Your task to perform on an android device: manage bookmarks in the chrome app Image 0: 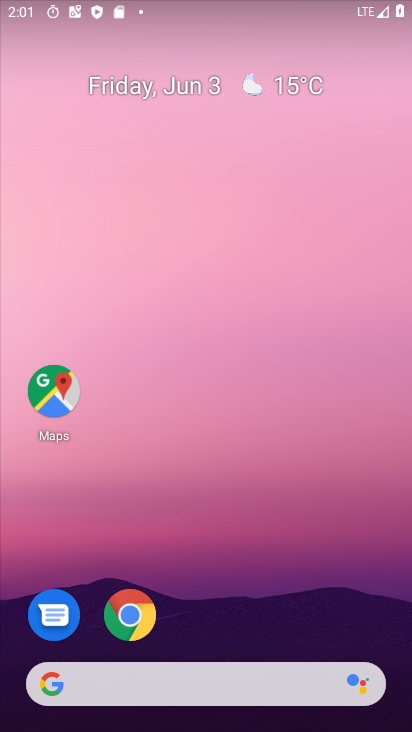
Step 0: drag from (206, 551) to (210, 59)
Your task to perform on an android device: manage bookmarks in the chrome app Image 1: 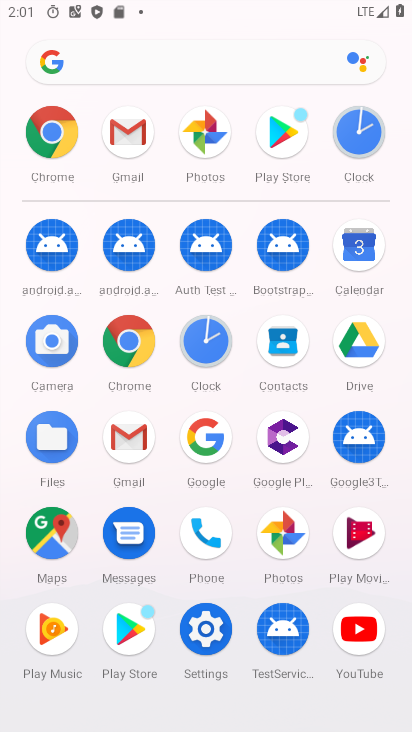
Step 1: click (121, 343)
Your task to perform on an android device: manage bookmarks in the chrome app Image 2: 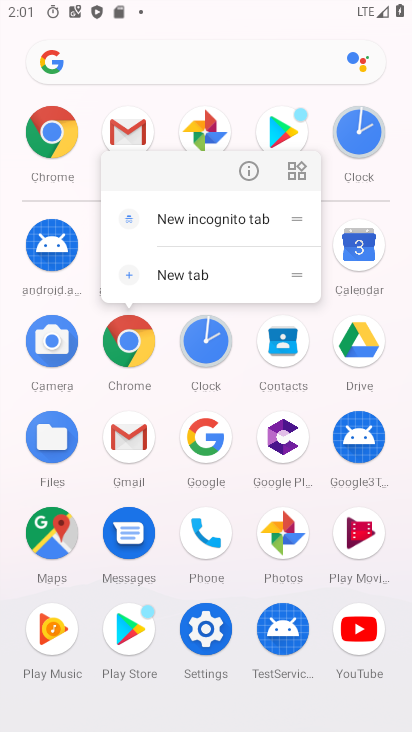
Step 2: click (250, 174)
Your task to perform on an android device: manage bookmarks in the chrome app Image 3: 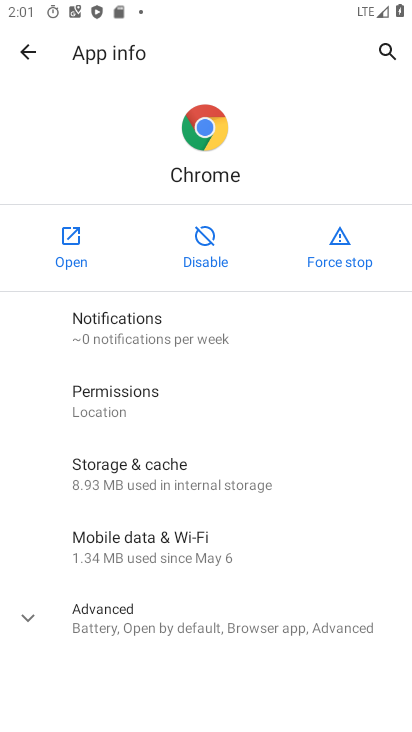
Step 3: click (68, 237)
Your task to perform on an android device: manage bookmarks in the chrome app Image 4: 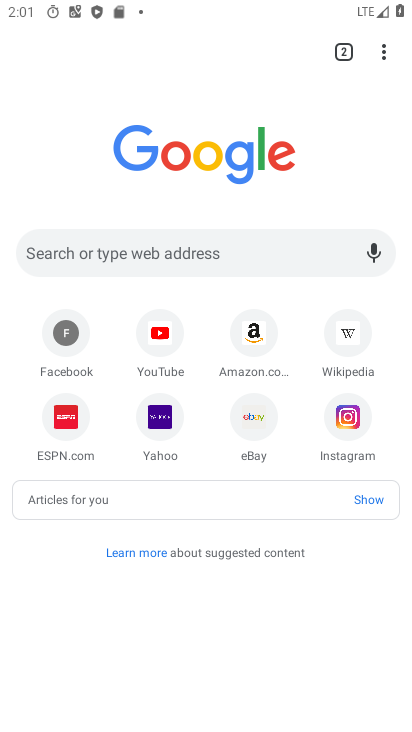
Step 4: click (387, 58)
Your task to perform on an android device: manage bookmarks in the chrome app Image 5: 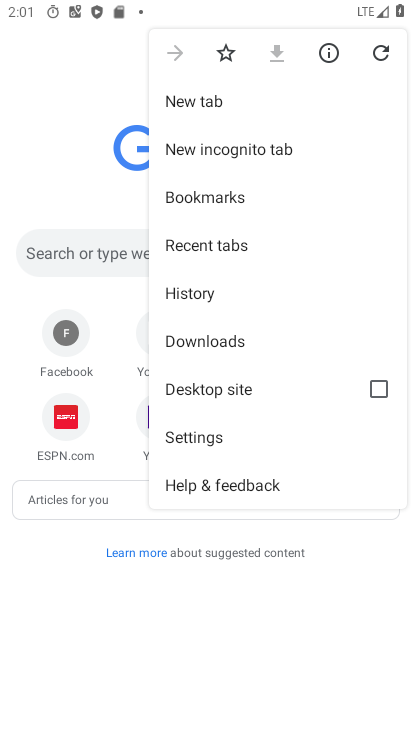
Step 5: click (226, 429)
Your task to perform on an android device: manage bookmarks in the chrome app Image 6: 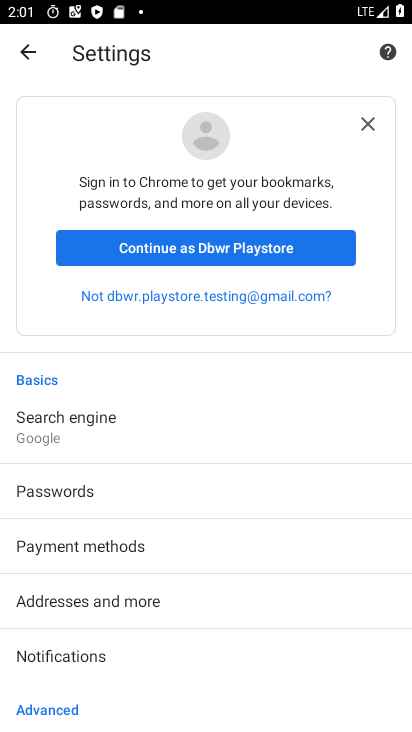
Step 6: drag from (156, 563) to (210, 201)
Your task to perform on an android device: manage bookmarks in the chrome app Image 7: 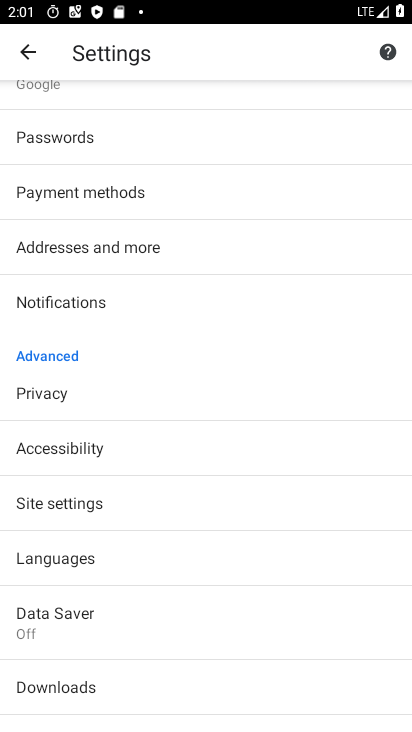
Step 7: drag from (157, 468) to (304, 709)
Your task to perform on an android device: manage bookmarks in the chrome app Image 8: 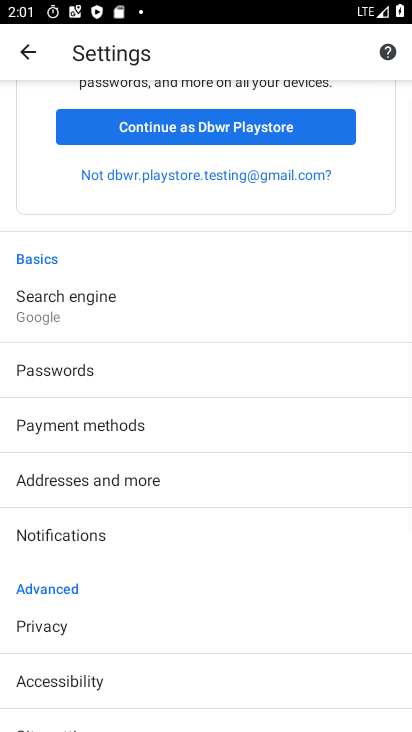
Step 8: click (35, 40)
Your task to perform on an android device: manage bookmarks in the chrome app Image 9: 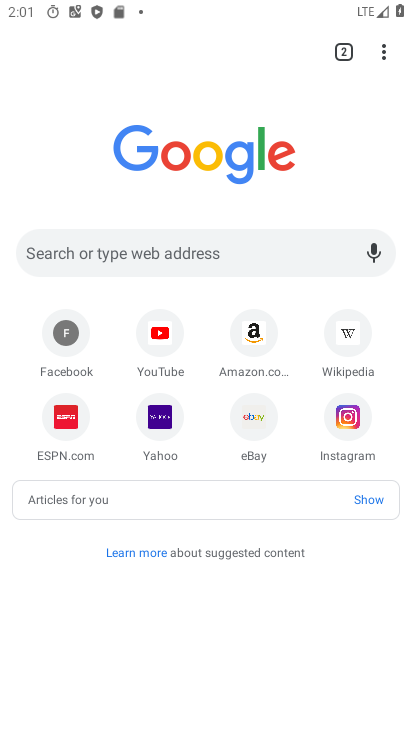
Step 9: click (386, 54)
Your task to perform on an android device: manage bookmarks in the chrome app Image 10: 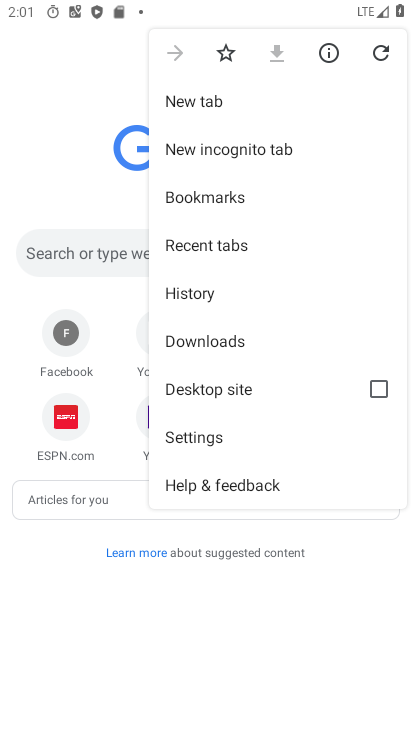
Step 10: click (241, 187)
Your task to perform on an android device: manage bookmarks in the chrome app Image 11: 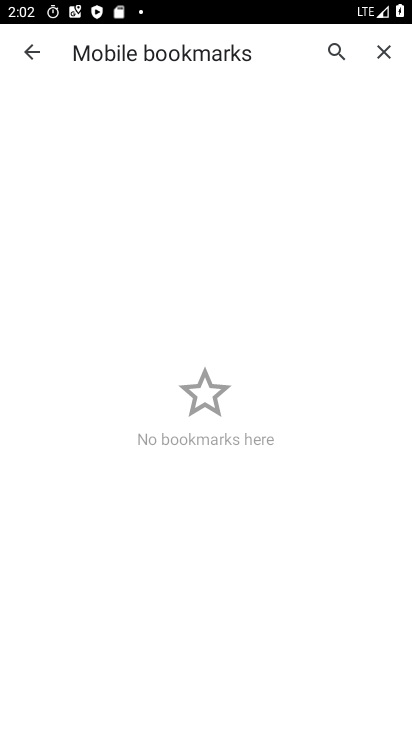
Step 11: task complete